Your task to perform on an android device: move an email to a new category in the gmail app Image 0: 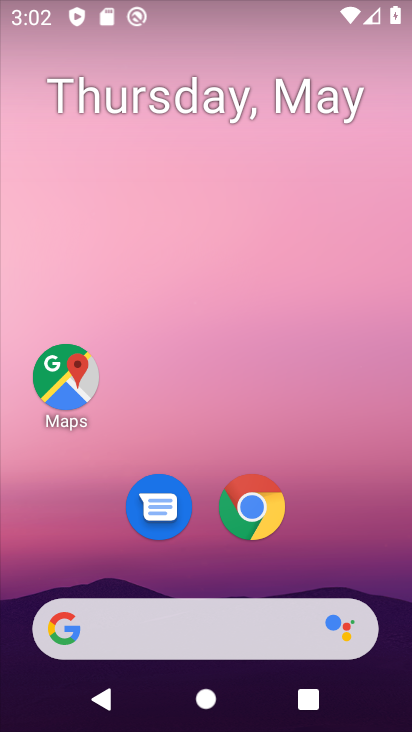
Step 0: drag from (282, 534) to (330, 151)
Your task to perform on an android device: move an email to a new category in the gmail app Image 1: 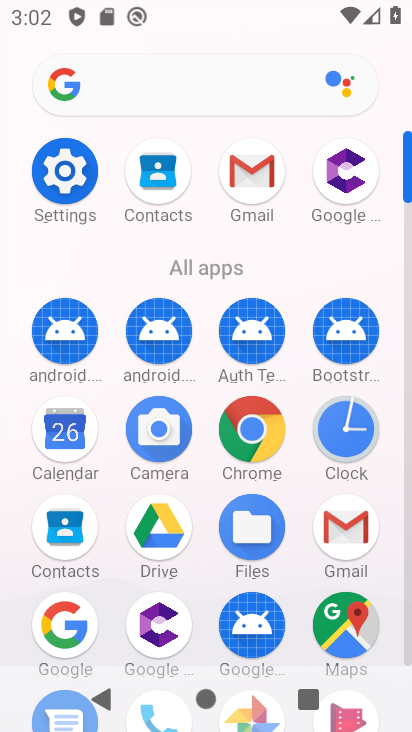
Step 1: click (243, 174)
Your task to perform on an android device: move an email to a new category in the gmail app Image 2: 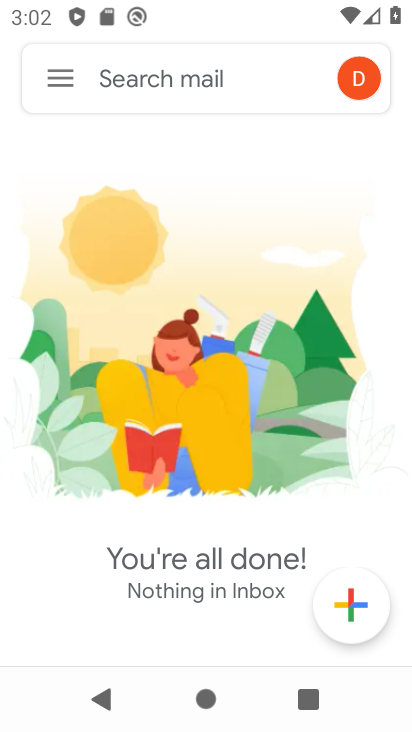
Step 2: task complete